Your task to perform on an android device: Open calendar and show me the second week of next month Image 0: 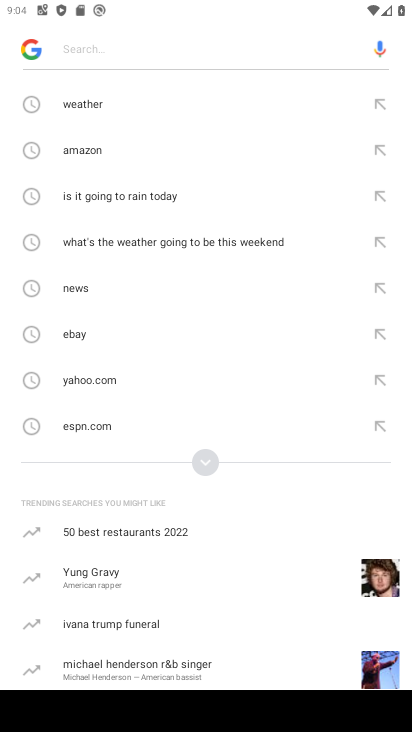
Step 0: press home button
Your task to perform on an android device: Open calendar and show me the second week of next month Image 1: 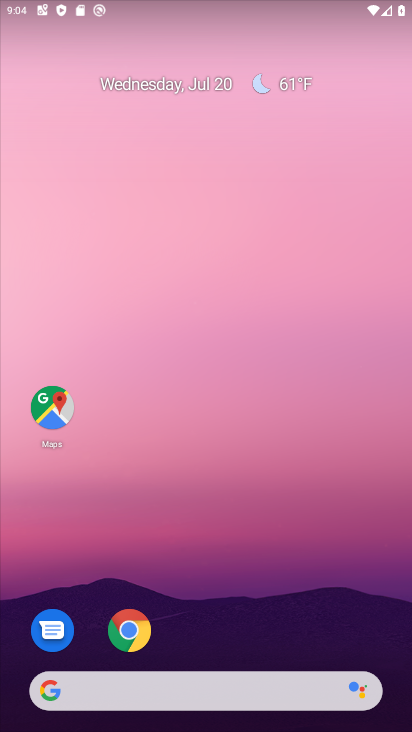
Step 1: drag from (247, 647) to (271, 27)
Your task to perform on an android device: Open calendar and show me the second week of next month Image 2: 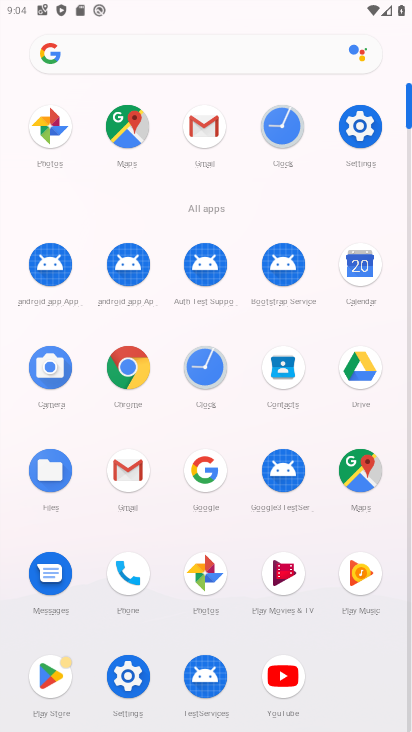
Step 2: click (357, 275)
Your task to perform on an android device: Open calendar and show me the second week of next month Image 3: 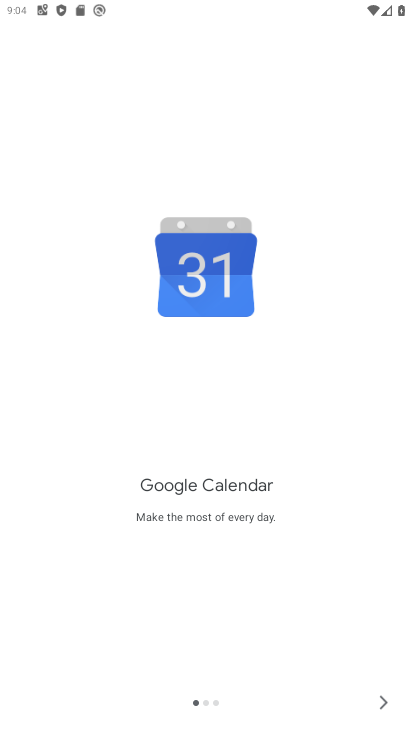
Step 3: click (382, 704)
Your task to perform on an android device: Open calendar and show me the second week of next month Image 4: 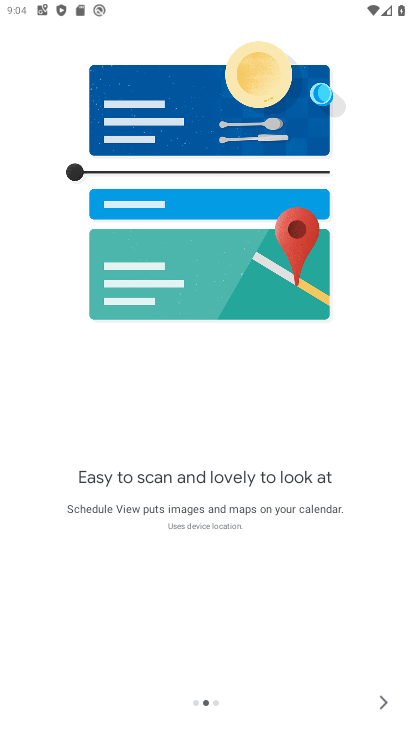
Step 4: click (382, 704)
Your task to perform on an android device: Open calendar and show me the second week of next month Image 5: 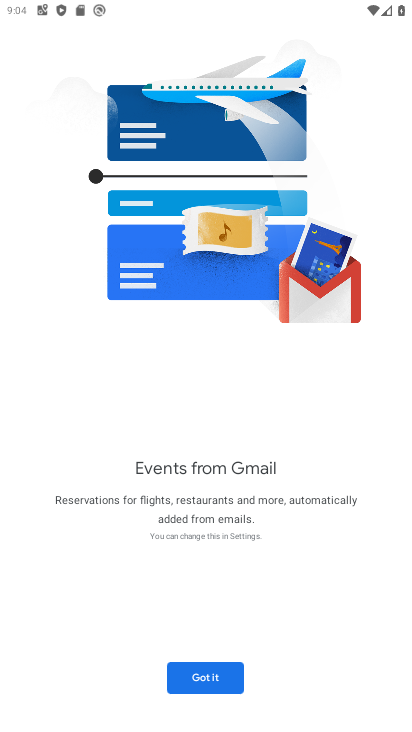
Step 5: click (185, 686)
Your task to perform on an android device: Open calendar and show me the second week of next month Image 6: 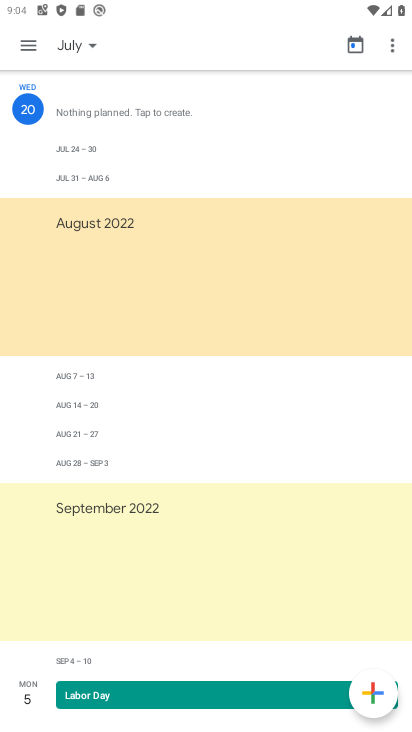
Step 6: click (64, 42)
Your task to perform on an android device: Open calendar and show me the second week of next month Image 7: 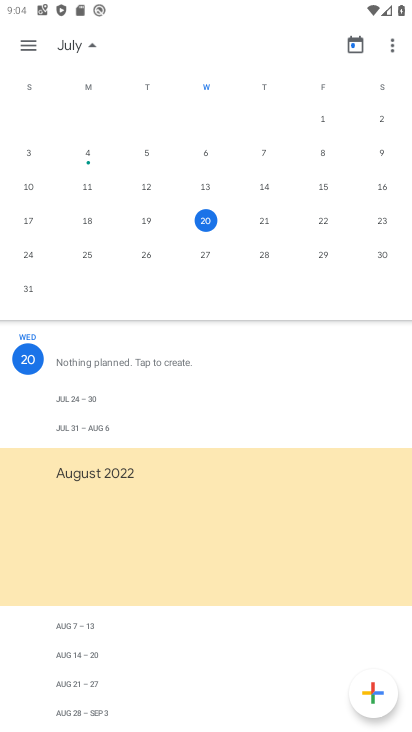
Step 7: drag from (381, 173) to (176, 169)
Your task to perform on an android device: Open calendar and show me the second week of next month Image 8: 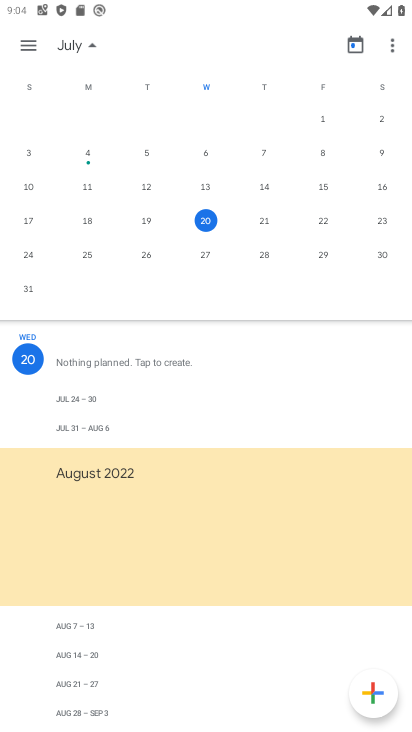
Step 8: drag from (399, 181) to (1, 164)
Your task to perform on an android device: Open calendar and show me the second week of next month Image 9: 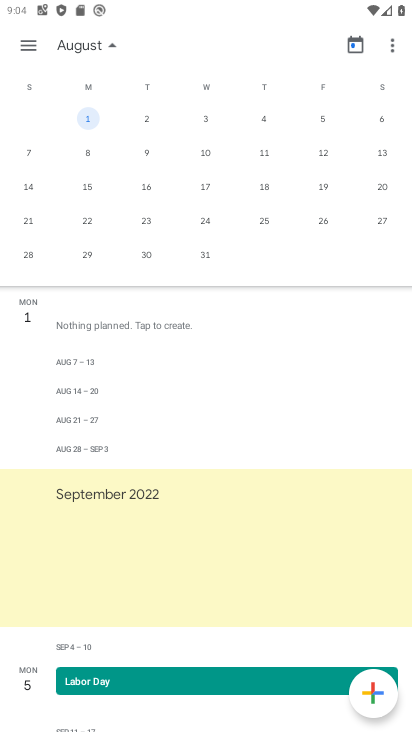
Step 9: click (30, 153)
Your task to perform on an android device: Open calendar and show me the second week of next month Image 10: 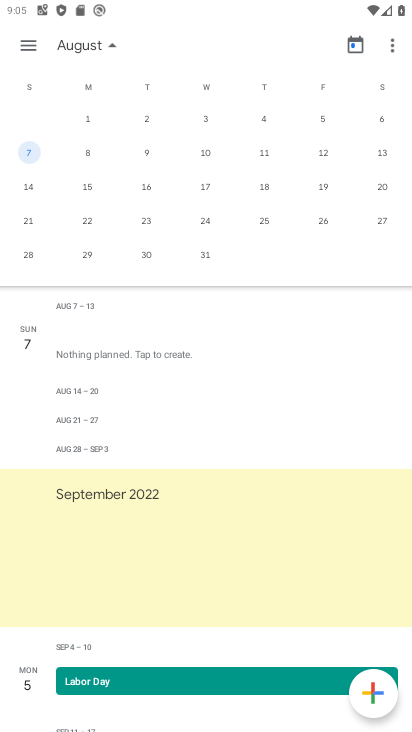
Step 10: task complete